Your task to perform on an android device: turn off improve location accuracy Image 0: 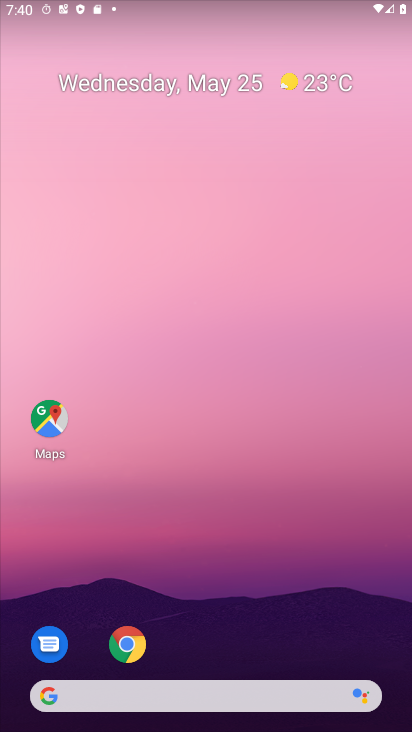
Step 0: drag from (316, 707) to (332, 185)
Your task to perform on an android device: turn off improve location accuracy Image 1: 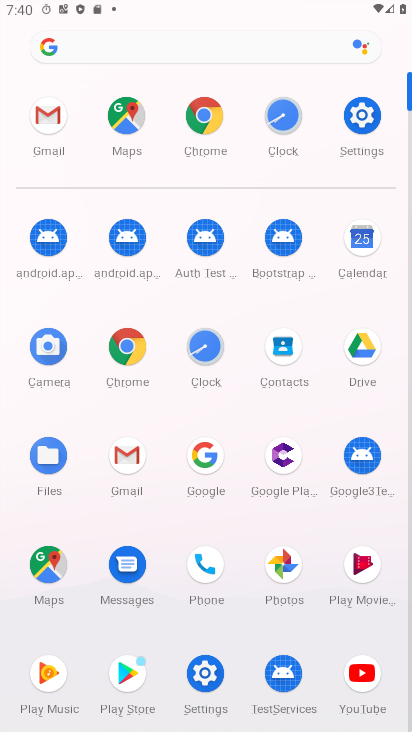
Step 1: click (362, 112)
Your task to perform on an android device: turn off improve location accuracy Image 2: 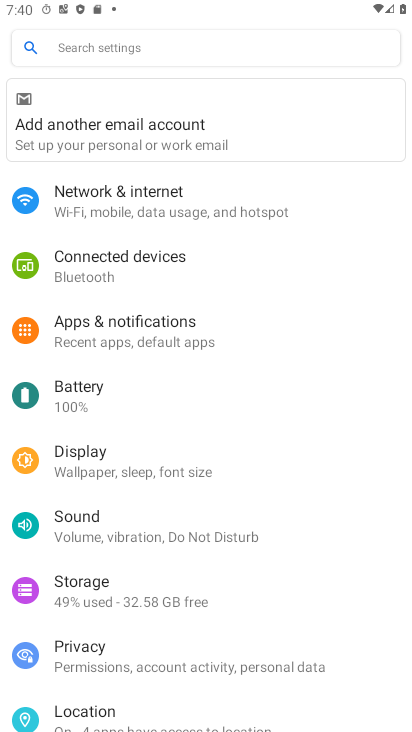
Step 2: click (123, 57)
Your task to perform on an android device: turn off improve location accuracy Image 3: 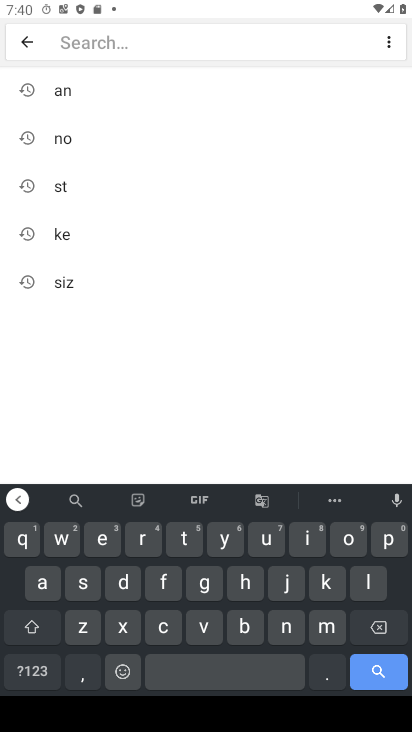
Step 3: click (367, 584)
Your task to perform on an android device: turn off improve location accuracy Image 4: 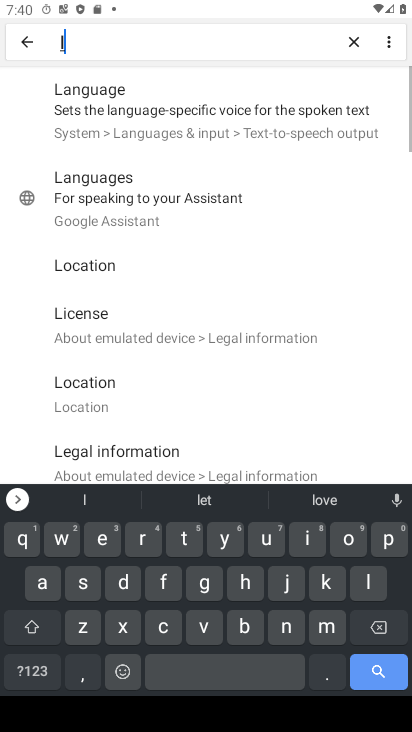
Step 4: click (346, 540)
Your task to perform on an android device: turn off improve location accuracy Image 5: 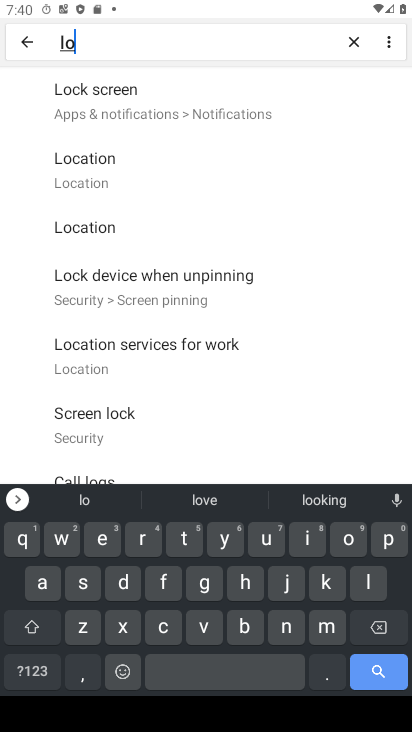
Step 5: click (142, 183)
Your task to perform on an android device: turn off improve location accuracy Image 6: 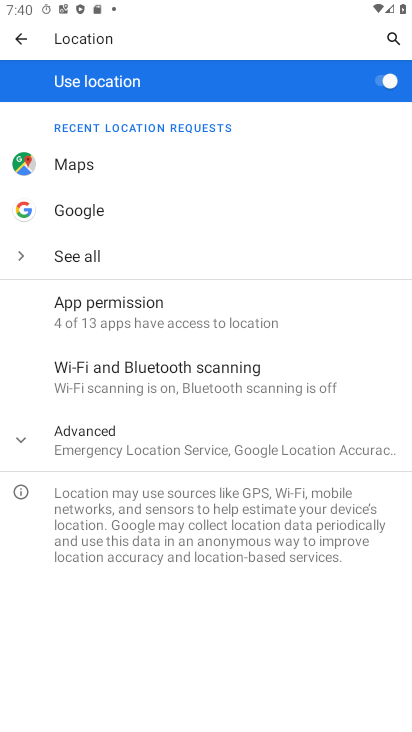
Step 6: click (44, 445)
Your task to perform on an android device: turn off improve location accuracy Image 7: 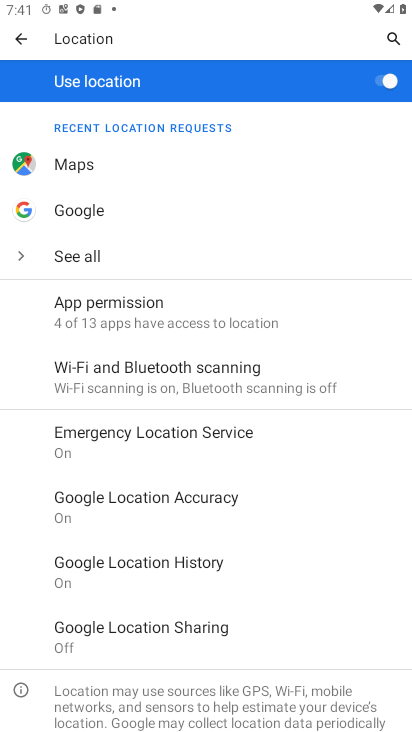
Step 7: click (193, 494)
Your task to perform on an android device: turn off improve location accuracy Image 8: 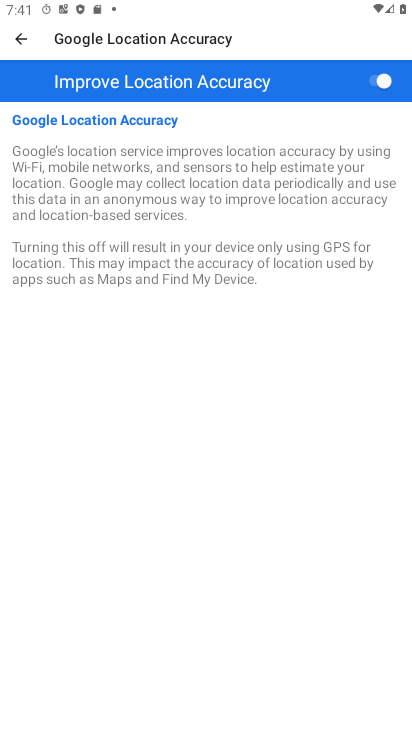
Step 8: click (395, 82)
Your task to perform on an android device: turn off improve location accuracy Image 9: 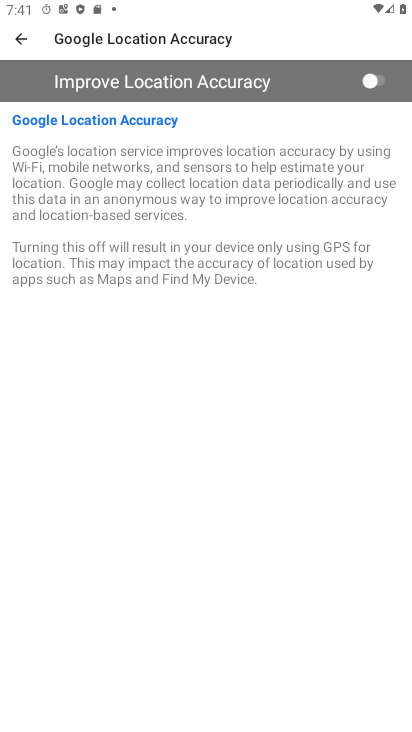
Step 9: task complete